Your task to perform on an android device: Open ESPN.com Image 0: 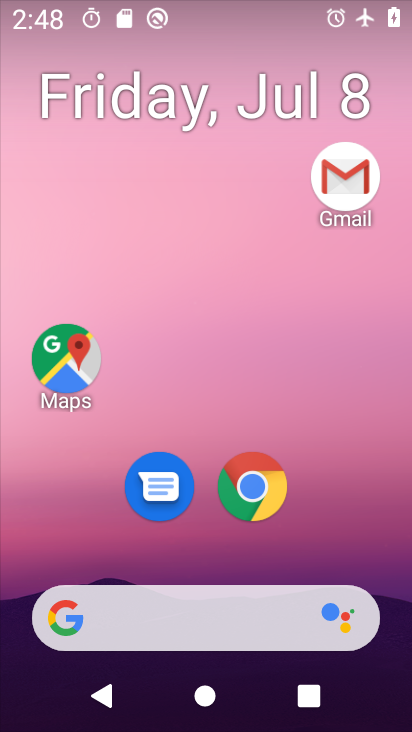
Step 0: drag from (355, 554) to (373, 210)
Your task to perform on an android device: Open ESPN.com Image 1: 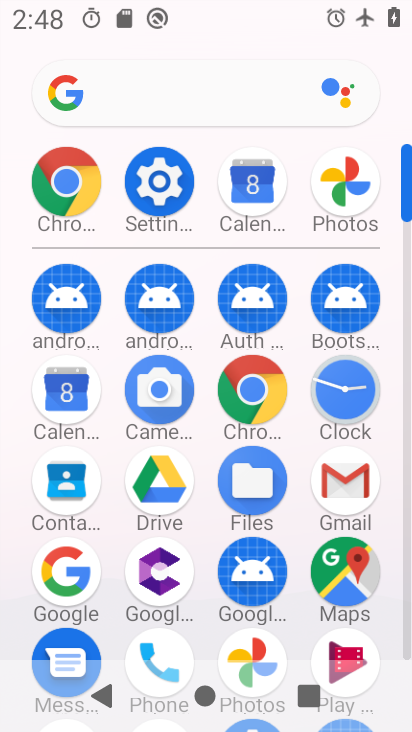
Step 1: click (269, 390)
Your task to perform on an android device: Open ESPN.com Image 2: 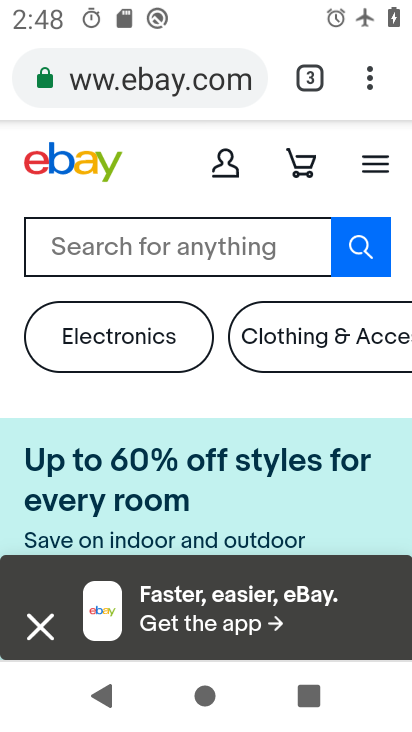
Step 2: click (196, 82)
Your task to perform on an android device: Open ESPN.com Image 3: 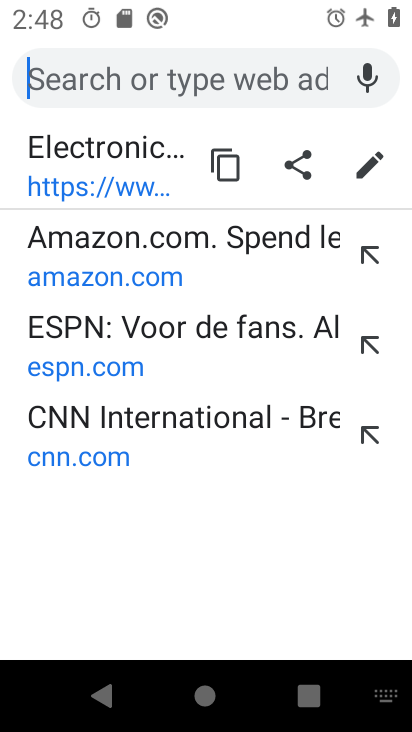
Step 3: type "espn.com"
Your task to perform on an android device: Open ESPN.com Image 4: 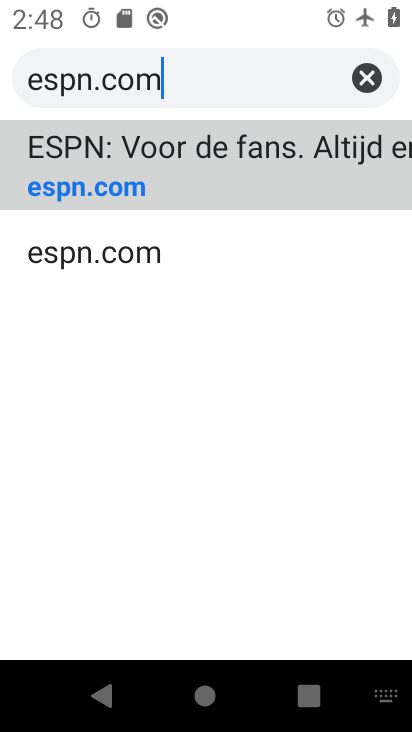
Step 4: click (216, 178)
Your task to perform on an android device: Open ESPN.com Image 5: 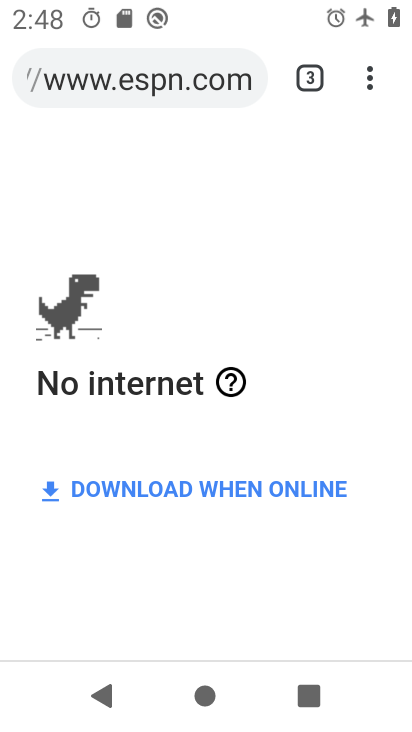
Step 5: task complete